Your task to perform on an android device: What is the recent news? Image 0: 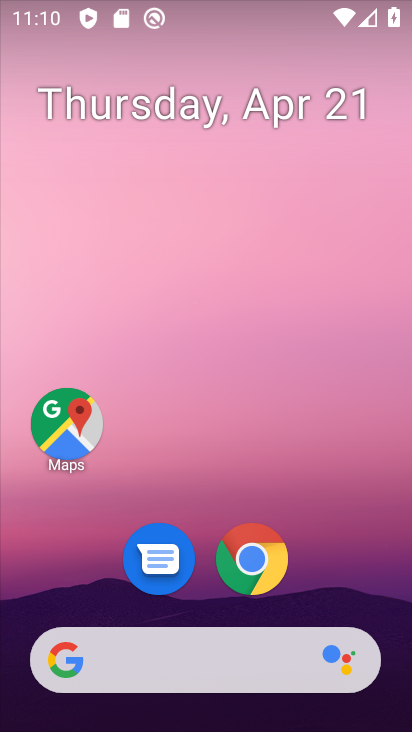
Step 0: drag from (14, 227) to (409, 321)
Your task to perform on an android device: What is the recent news? Image 1: 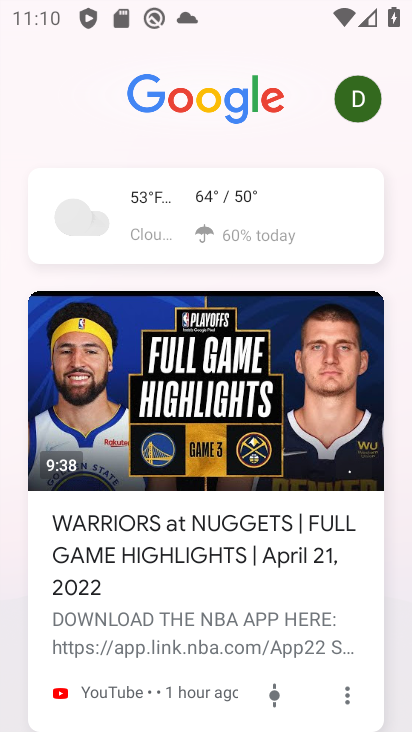
Step 1: task complete